Your task to perform on an android device: Open maps Image 0: 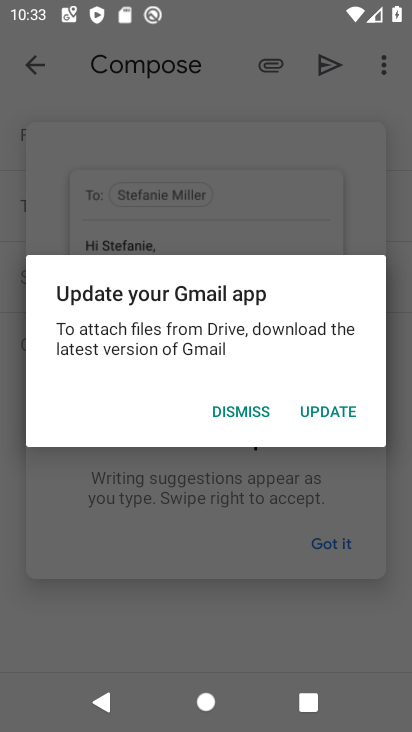
Step 0: press home button
Your task to perform on an android device: Open maps Image 1: 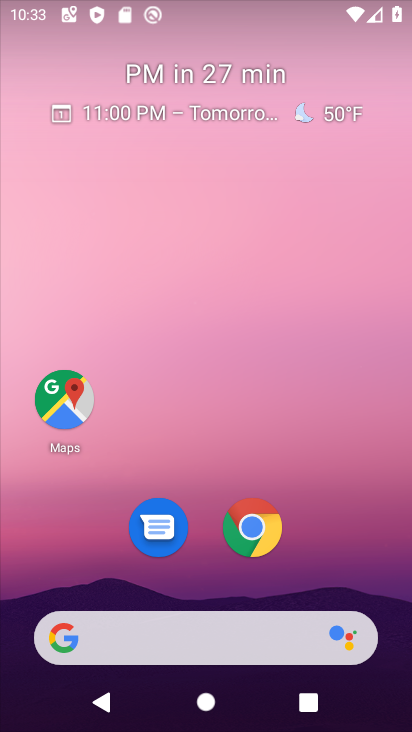
Step 1: drag from (353, 514) to (307, 138)
Your task to perform on an android device: Open maps Image 2: 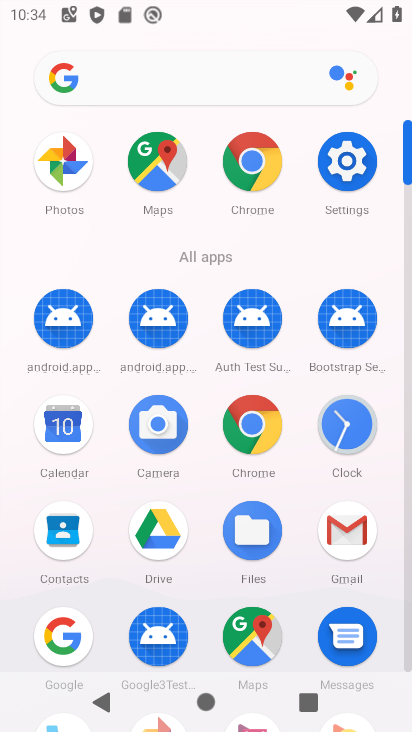
Step 2: drag from (277, 587) to (287, 264)
Your task to perform on an android device: Open maps Image 3: 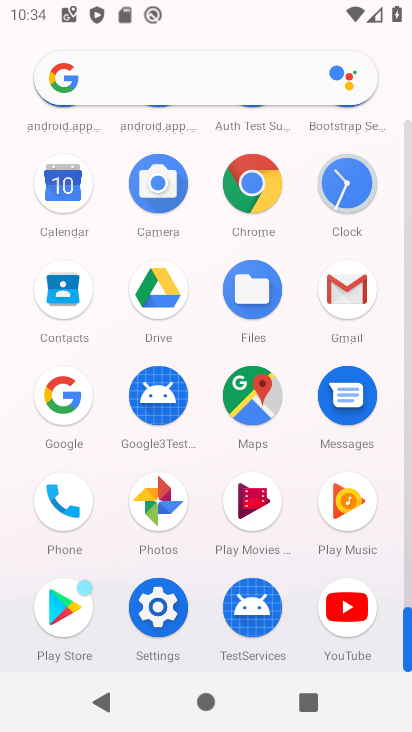
Step 3: click (244, 388)
Your task to perform on an android device: Open maps Image 4: 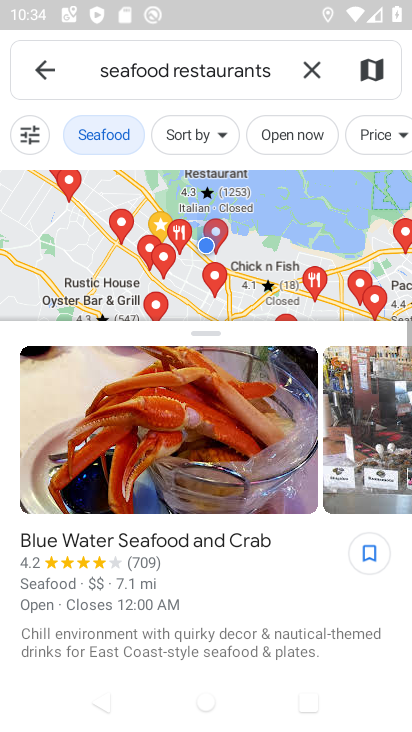
Step 4: task complete